Your task to perform on an android device: turn smart compose on in the gmail app Image 0: 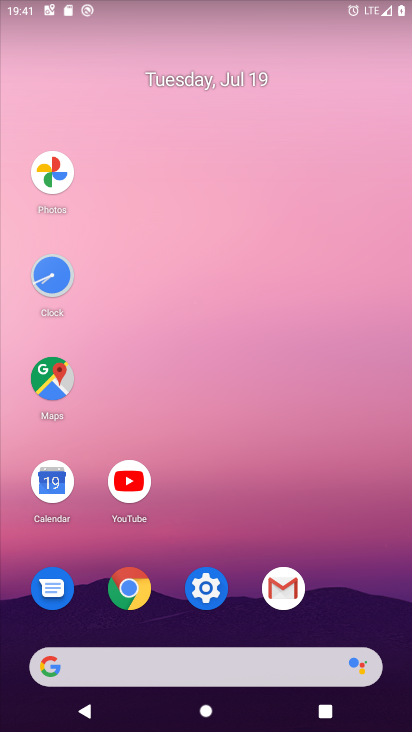
Step 0: click (281, 587)
Your task to perform on an android device: turn smart compose on in the gmail app Image 1: 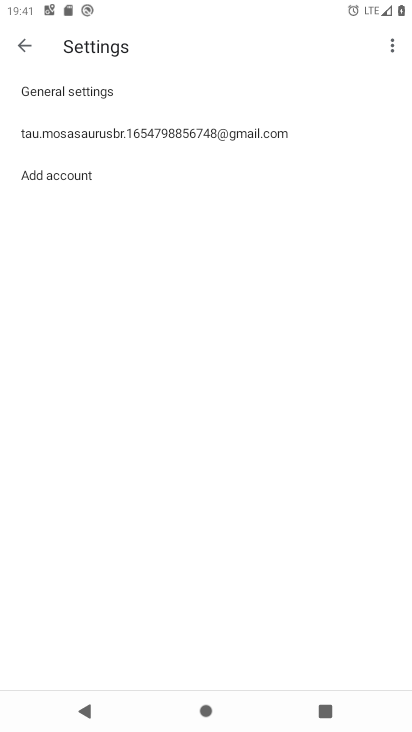
Step 1: click (23, 44)
Your task to perform on an android device: turn smart compose on in the gmail app Image 2: 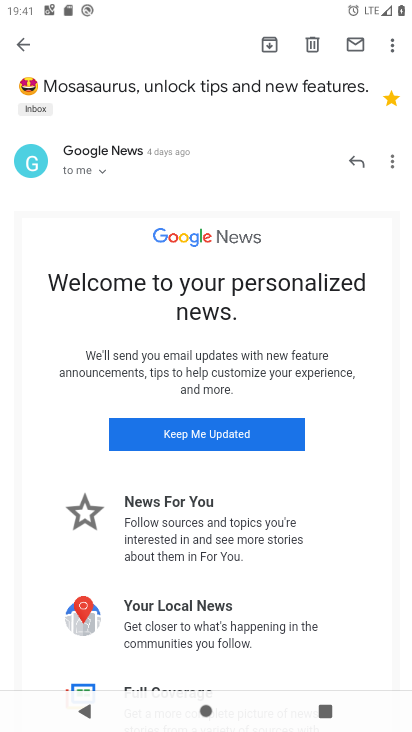
Step 2: click (20, 36)
Your task to perform on an android device: turn smart compose on in the gmail app Image 3: 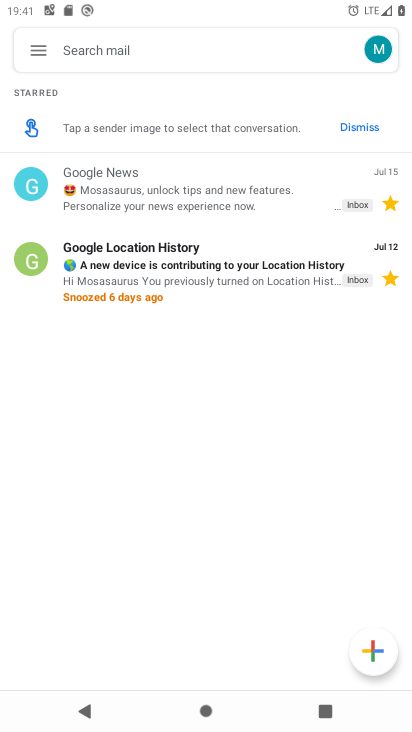
Step 3: click (33, 53)
Your task to perform on an android device: turn smart compose on in the gmail app Image 4: 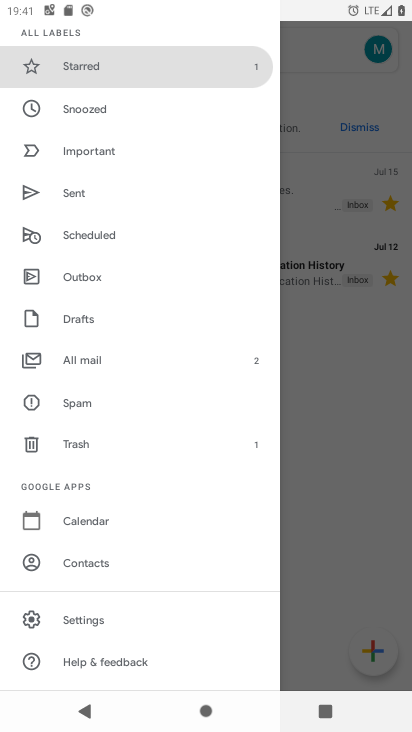
Step 4: click (81, 613)
Your task to perform on an android device: turn smart compose on in the gmail app Image 5: 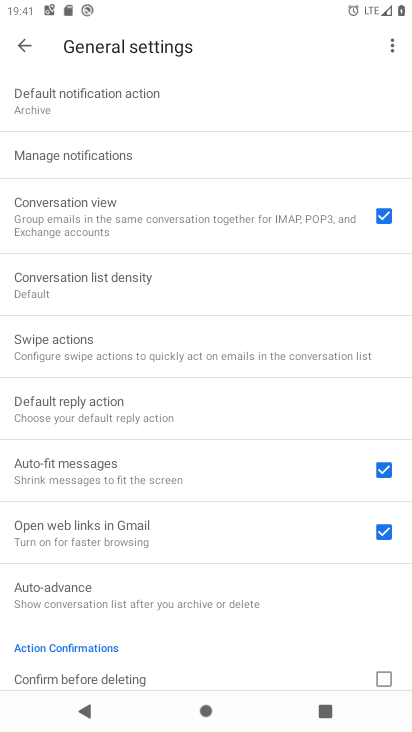
Step 5: click (25, 43)
Your task to perform on an android device: turn smart compose on in the gmail app Image 6: 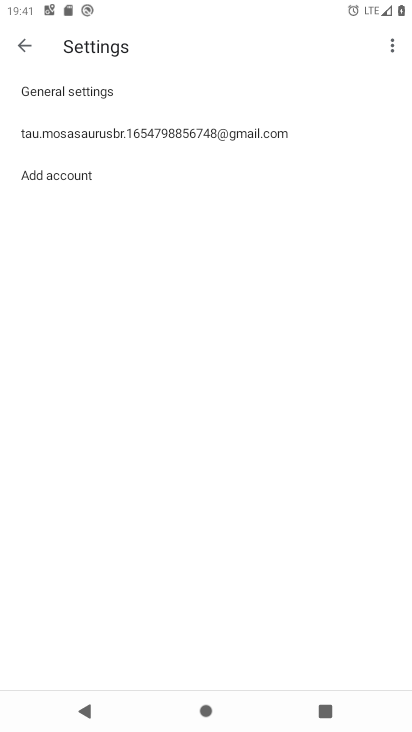
Step 6: click (67, 132)
Your task to perform on an android device: turn smart compose on in the gmail app Image 7: 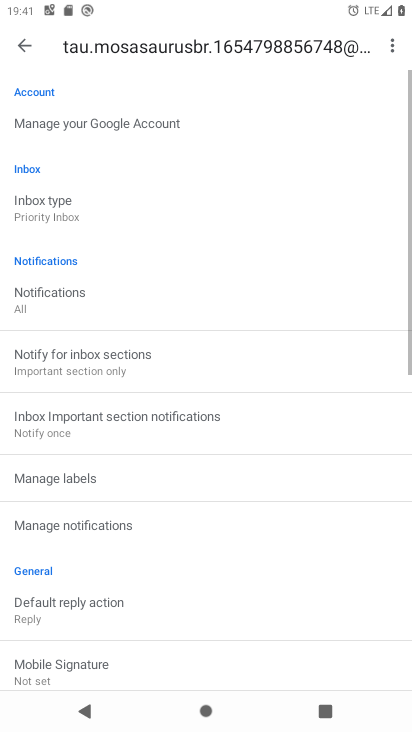
Step 7: task complete